Your task to perform on an android device: set the stopwatch Image 0: 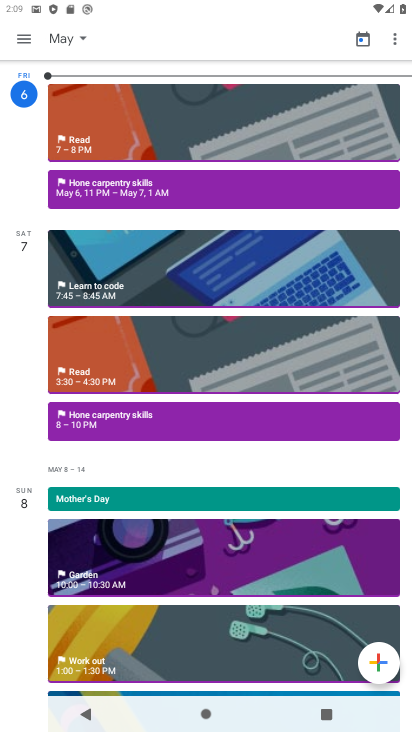
Step 0: press home button
Your task to perform on an android device: set the stopwatch Image 1: 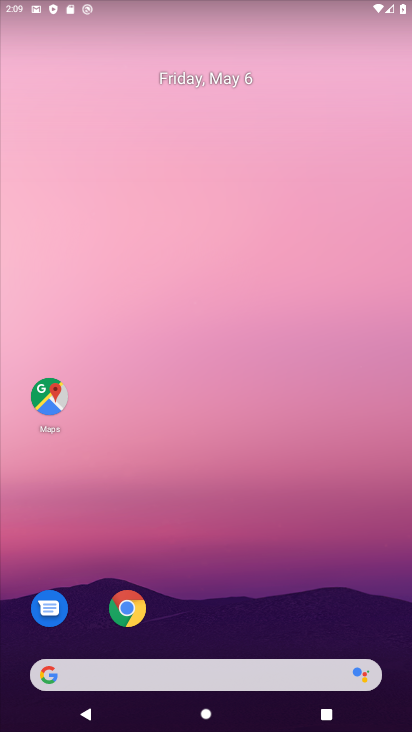
Step 1: drag from (212, 598) to (324, 101)
Your task to perform on an android device: set the stopwatch Image 2: 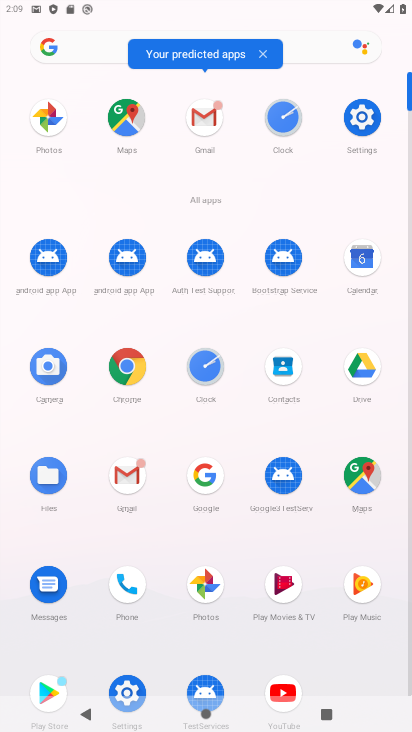
Step 2: click (205, 373)
Your task to perform on an android device: set the stopwatch Image 3: 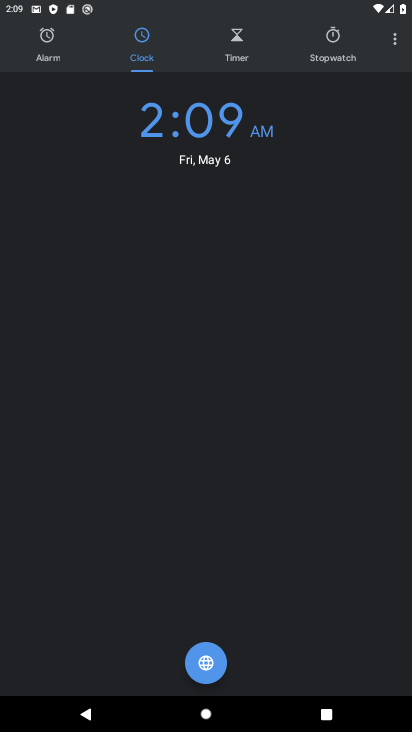
Step 3: click (346, 42)
Your task to perform on an android device: set the stopwatch Image 4: 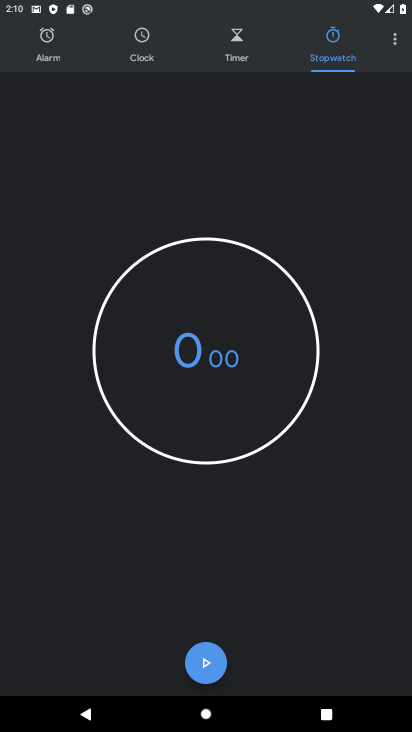
Step 4: click (203, 657)
Your task to perform on an android device: set the stopwatch Image 5: 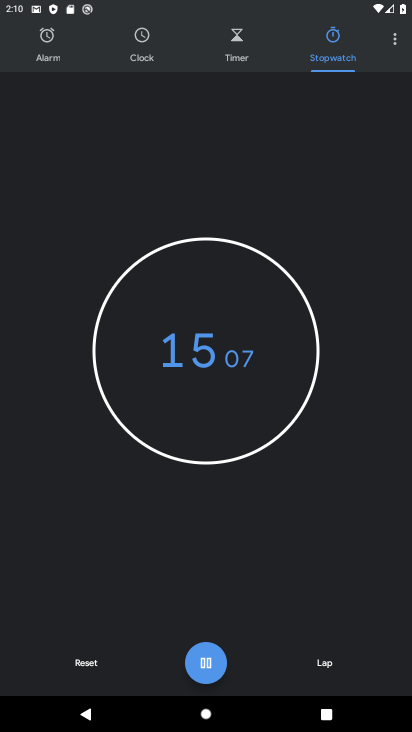
Step 5: task complete